Your task to perform on an android device: find snoozed emails in the gmail app Image 0: 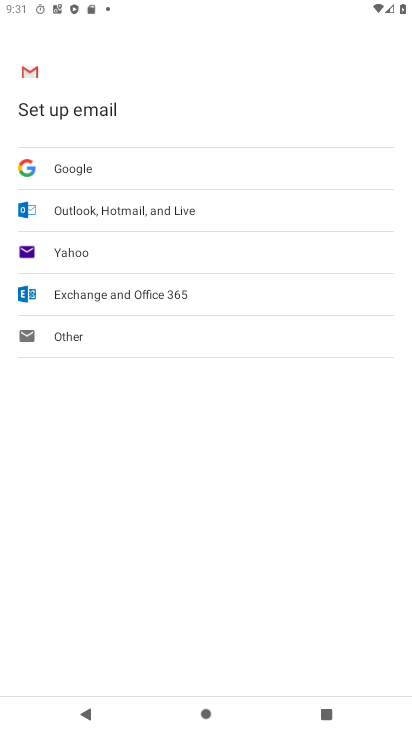
Step 0: press home button
Your task to perform on an android device: find snoozed emails in the gmail app Image 1: 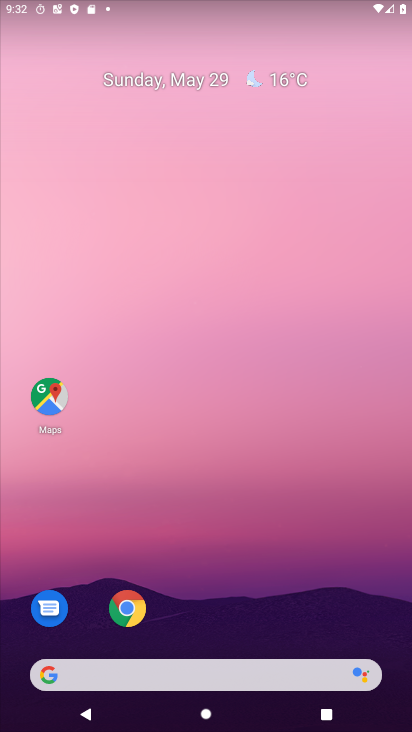
Step 1: drag from (160, 632) to (271, 0)
Your task to perform on an android device: find snoozed emails in the gmail app Image 2: 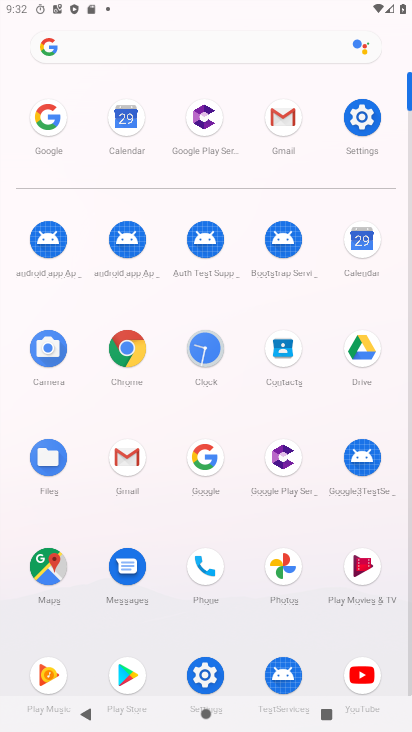
Step 2: click (275, 128)
Your task to perform on an android device: find snoozed emails in the gmail app Image 3: 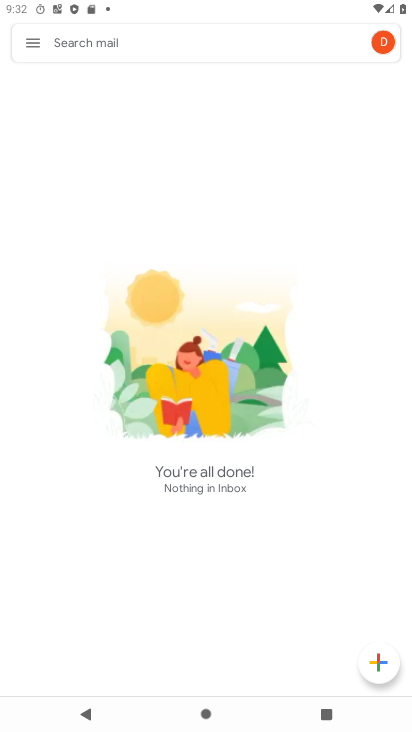
Step 3: click (26, 53)
Your task to perform on an android device: find snoozed emails in the gmail app Image 4: 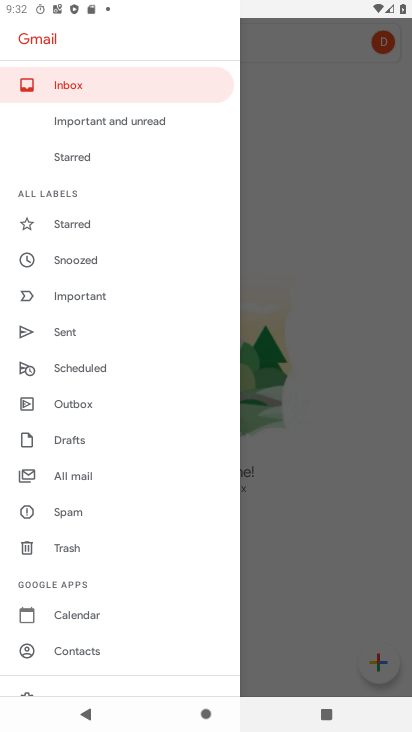
Step 4: click (90, 230)
Your task to perform on an android device: find snoozed emails in the gmail app Image 5: 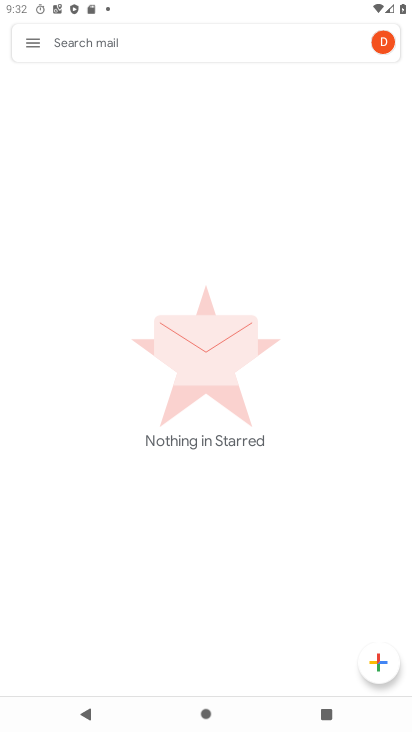
Step 5: task complete